Your task to perform on an android device: Open Chrome and go to the settings page Image 0: 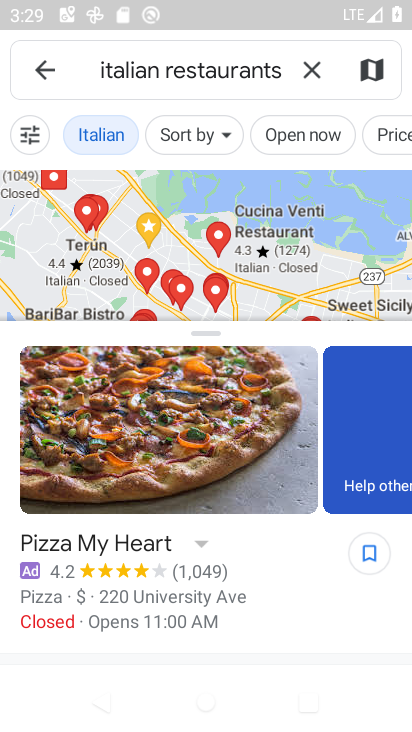
Step 0: press home button
Your task to perform on an android device: Open Chrome and go to the settings page Image 1: 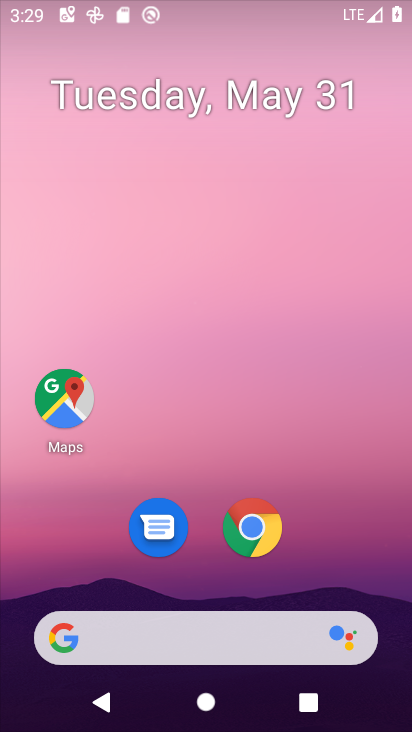
Step 1: drag from (356, 471) to (411, 26)
Your task to perform on an android device: Open Chrome and go to the settings page Image 2: 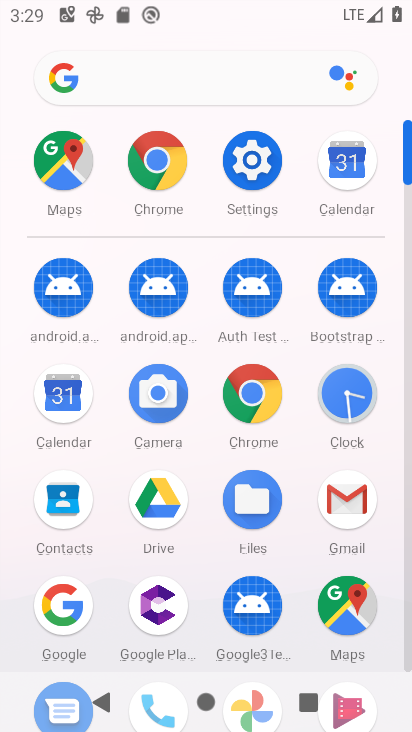
Step 2: click (173, 173)
Your task to perform on an android device: Open Chrome and go to the settings page Image 3: 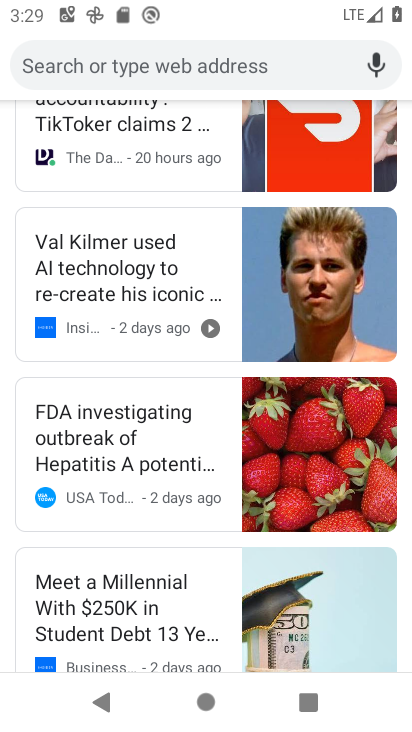
Step 3: task complete